Your task to perform on an android device: Open the stopwatch Image 0: 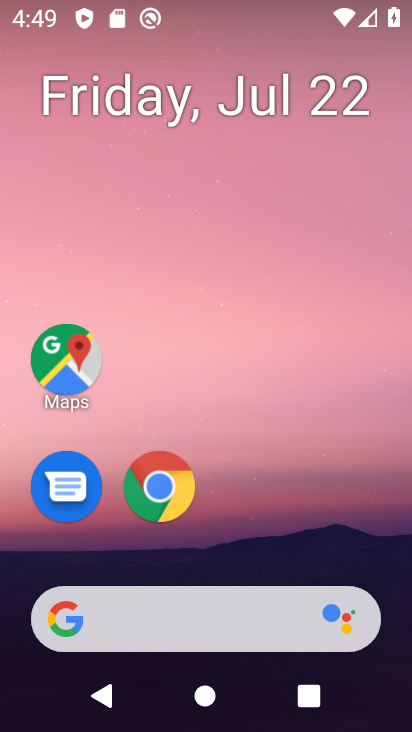
Step 0: drag from (399, 569) to (331, 107)
Your task to perform on an android device: Open the stopwatch Image 1: 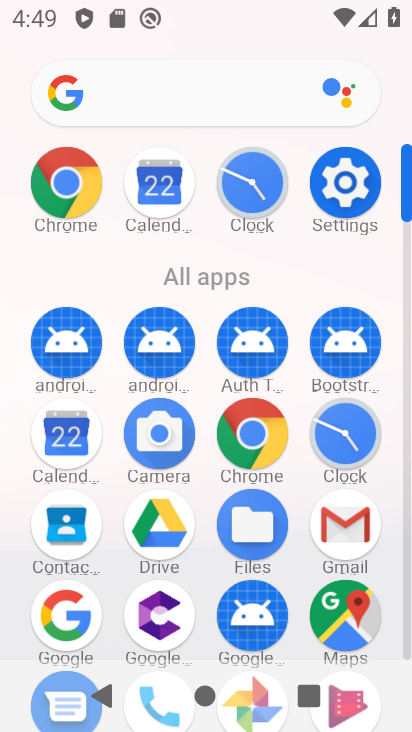
Step 1: click (265, 189)
Your task to perform on an android device: Open the stopwatch Image 2: 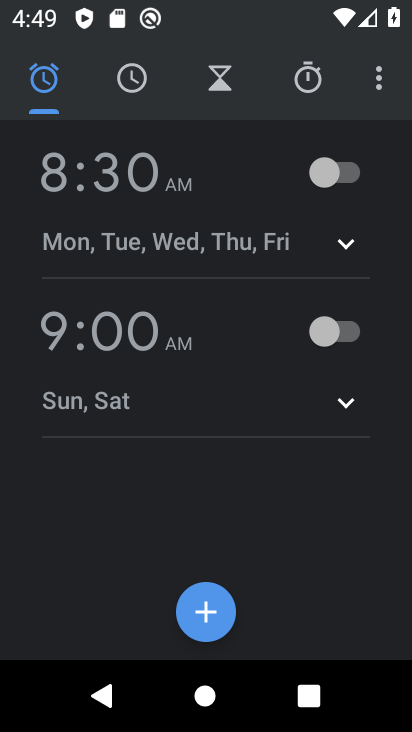
Step 2: click (322, 80)
Your task to perform on an android device: Open the stopwatch Image 3: 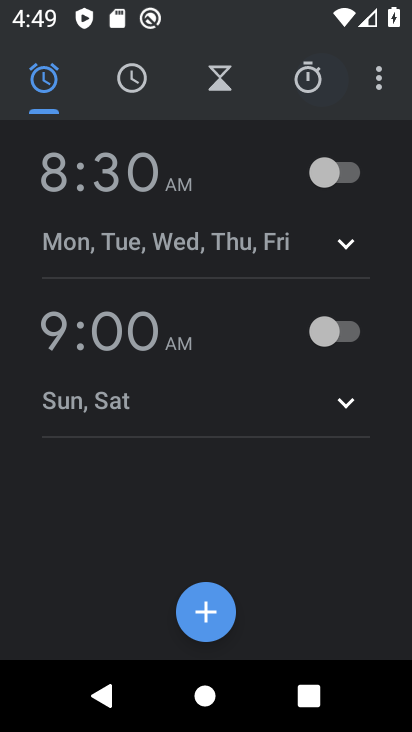
Step 3: click (322, 80)
Your task to perform on an android device: Open the stopwatch Image 4: 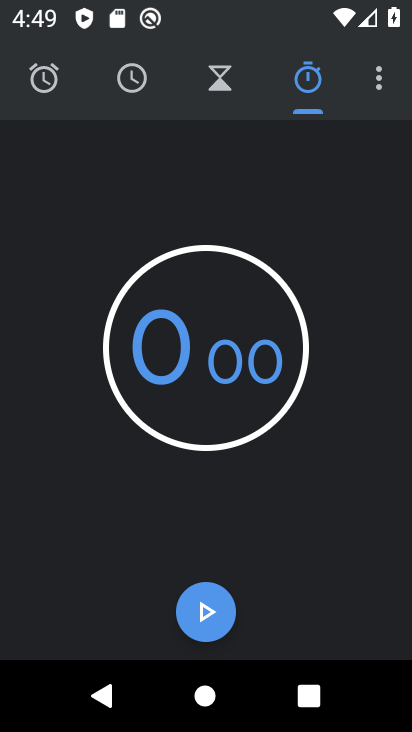
Step 4: task complete